Your task to perform on an android device: What's on my calendar tomorrow? Image 0: 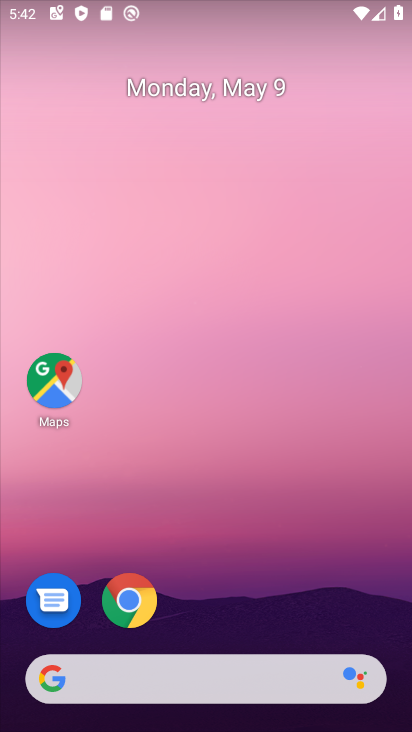
Step 0: drag from (204, 618) to (405, 342)
Your task to perform on an android device: What's on my calendar tomorrow? Image 1: 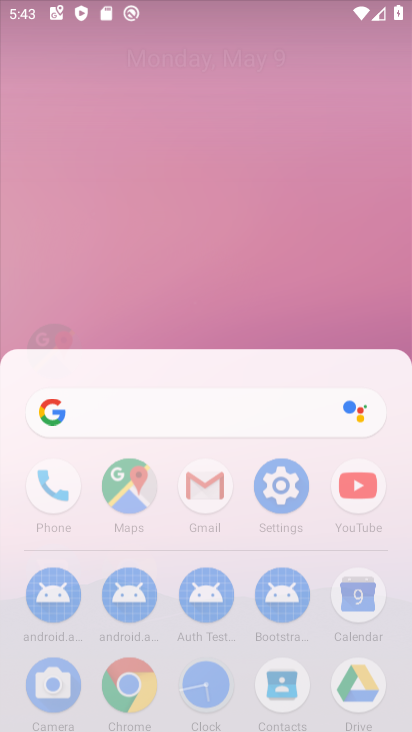
Step 1: click (349, 337)
Your task to perform on an android device: What's on my calendar tomorrow? Image 2: 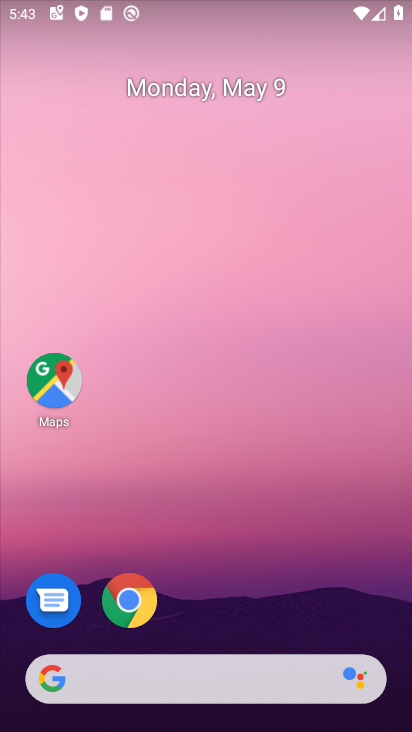
Step 2: drag from (223, 617) to (304, 5)
Your task to perform on an android device: What's on my calendar tomorrow? Image 3: 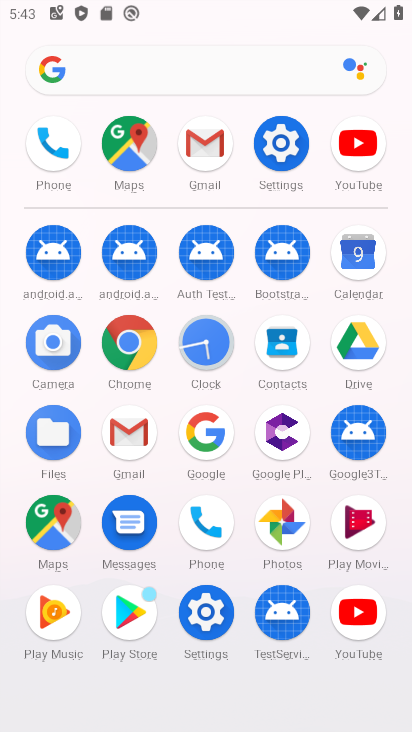
Step 3: click (365, 275)
Your task to perform on an android device: What's on my calendar tomorrow? Image 4: 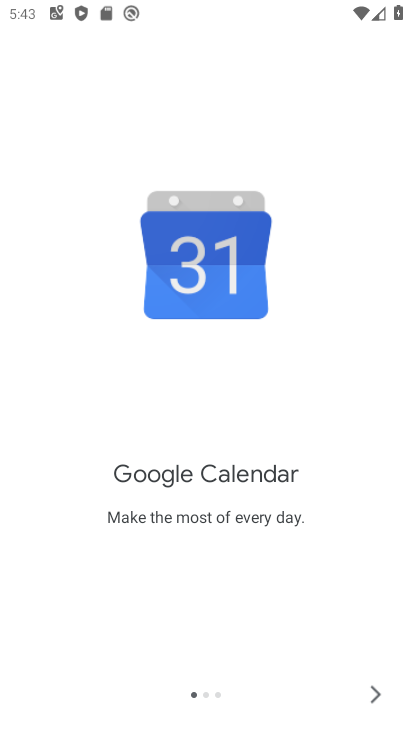
Step 4: click (378, 704)
Your task to perform on an android device: What's on my calendar tomorrow? Image 5: 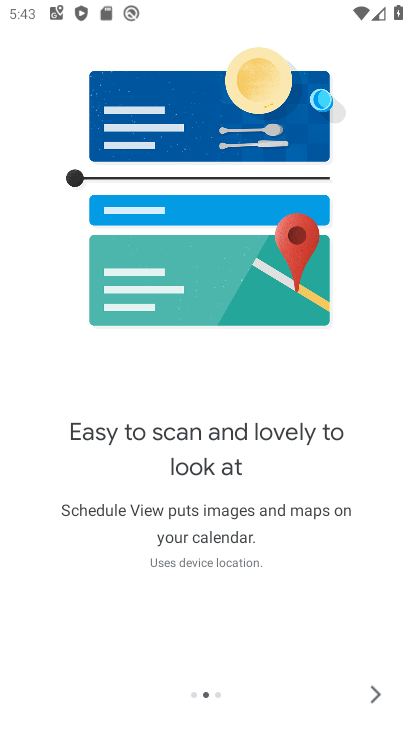
Step 5: click (375, 684)
Your task to perform on an android device: What's on my calendar tomorrow? Image 6: 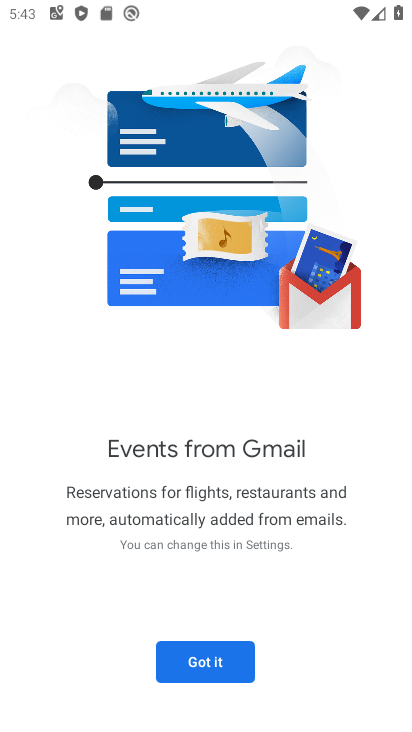
Step 6: click (202, 659)
Your task to perform on an android device: What's on my calendar tomorrow? Image 7: 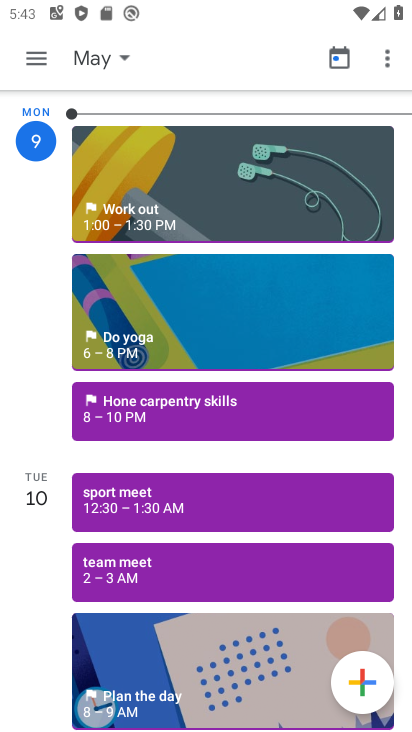
Step 7: click (38, 65)
Your task to perform on an android device: What's on my calendar tomorrow? Image 8: 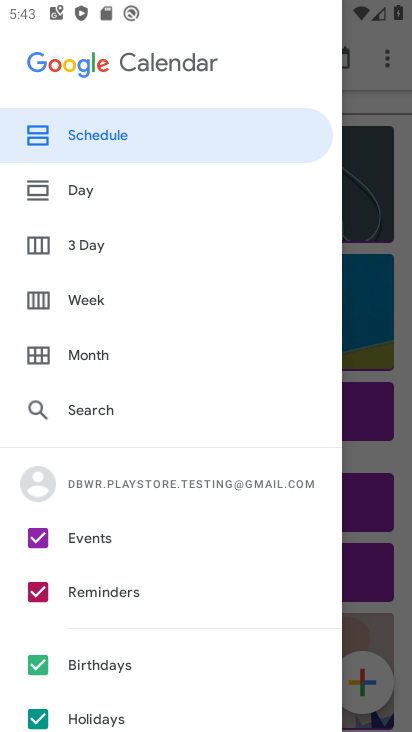
Step 8: click (100, 254)
Your task to perform on an android device: What's on my calendar tomorrow? Image 9: 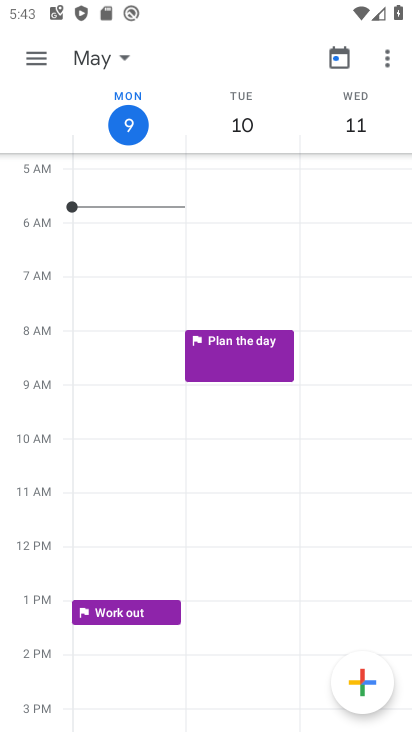
Step 9: task complete